Your task to perform on an android device: all mails in gmail Image 0: 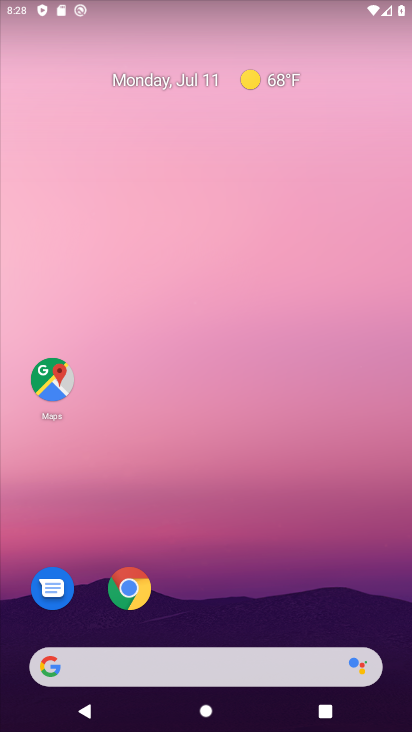
Step 0: drag from (227, 636) to (334, 5)
Your task to perform on an android device: all mails in gmail Image 1: 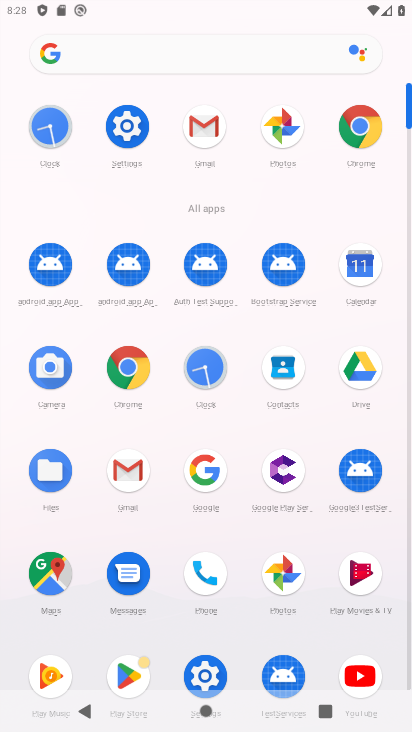
Step 1: click (140, 468)
Your task to perform on an android device: all mails in gmail Image 2: 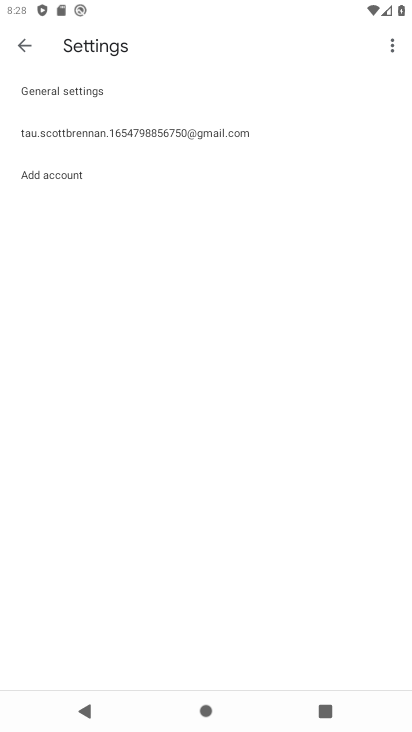
Step 2: click (21, 45)
Your task to perform on an android device: all mails in gmail Image 3: 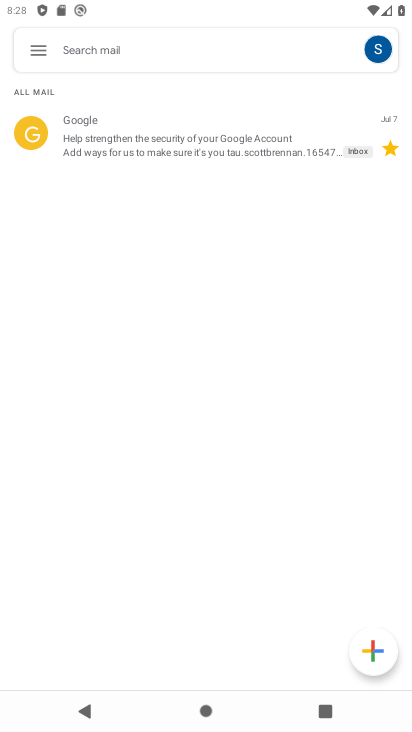
Step 3: click (21, 51)
Your task to perform on an android device: all mails in gmail Image 4: 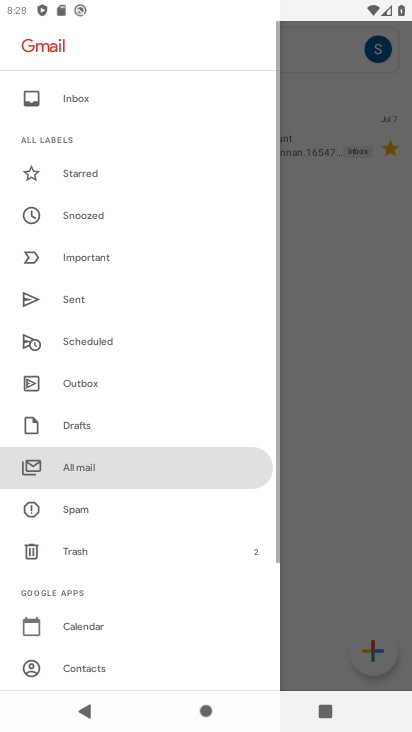
Step 4: click (152, 467)
Your task to perform on an android device: all mails in gmail Image 5: 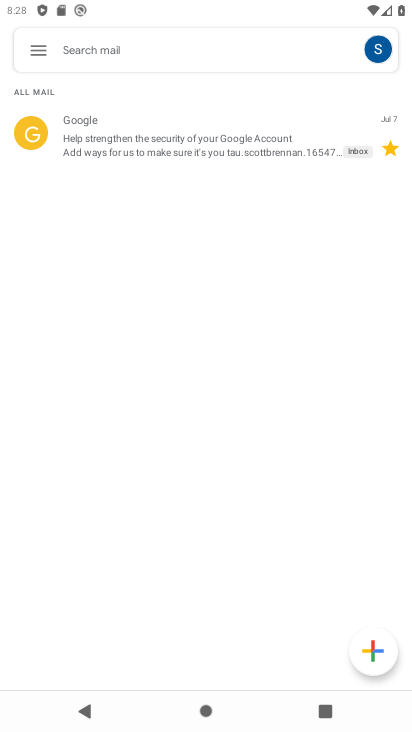
Step 5: task complete